Your task to perform on an android device: What's the weather today? Image 0: 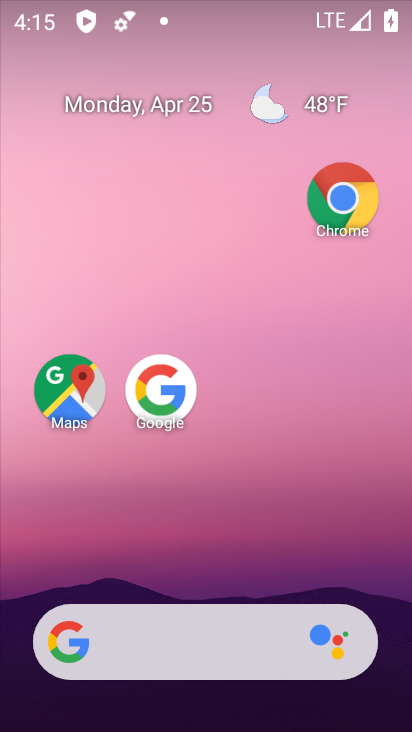
Step 0: click (315, 102)
Your task to perform on an android device: What's the weather today? Image 1: 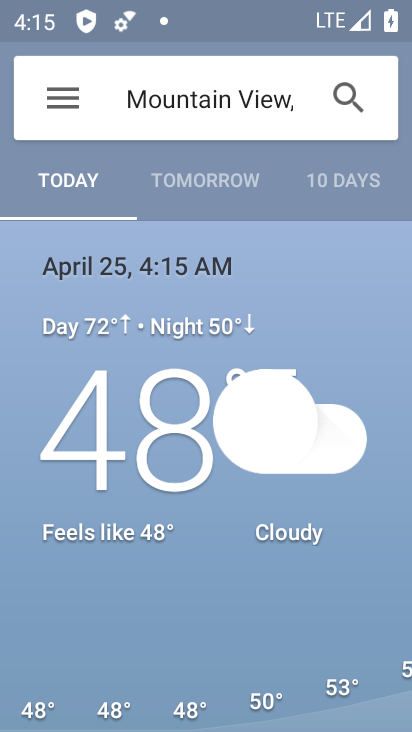
Step 1: task complete